Your task to perform on an android device: clear history in the chrome app Image 0: 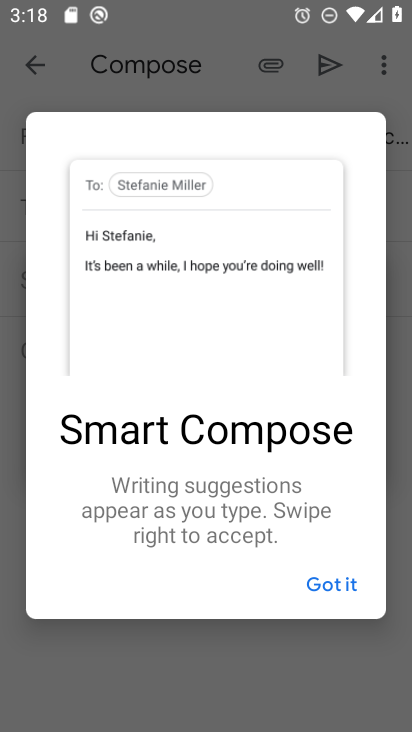
Step 0: press home button
Your task to perform on an android device: clear history in the chrome app Image 1: 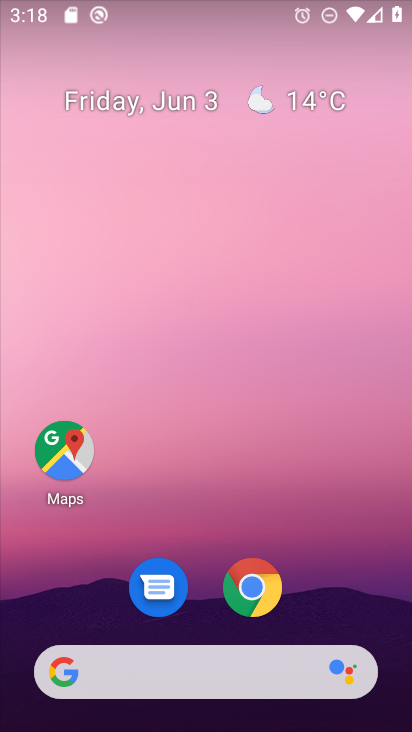
Step 1: click (251, 583)
Your task to perform on an android device: clear history in the chrome app Image 2: 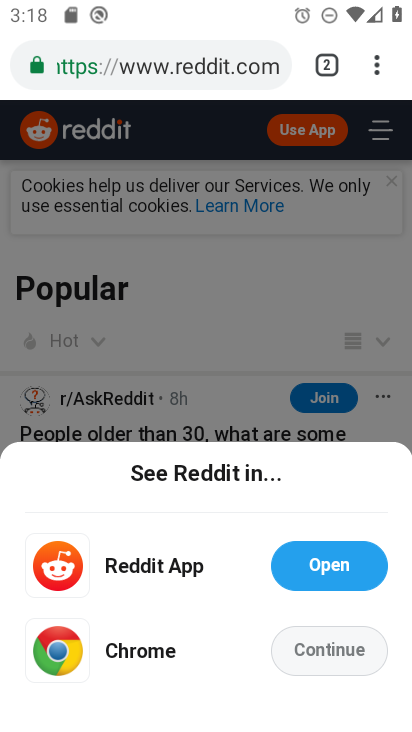
Step 2: click (377, 71)
Your task to perform on an android device: clear history in the chrome app Image 3: 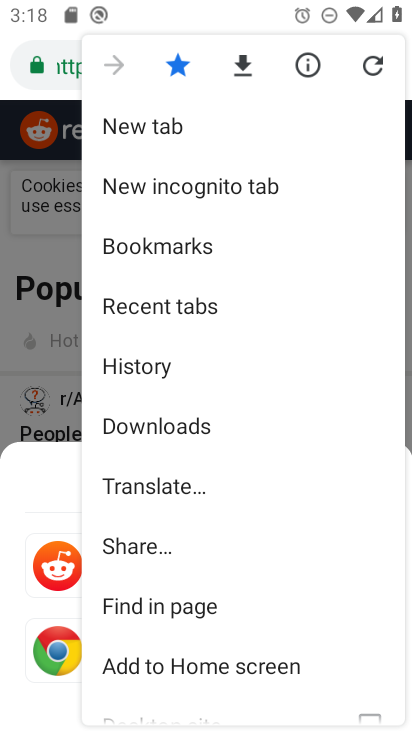
Step 3: click (160, 369)
Your task to perform on an android device: clear history in the chrome app Image 4: 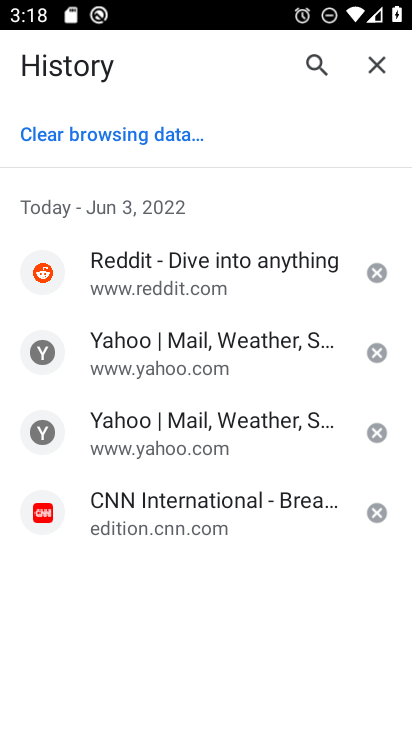
Step 4: click (132, 131)
Your task to perform on an android device: clear history in the chrome app Image 5: 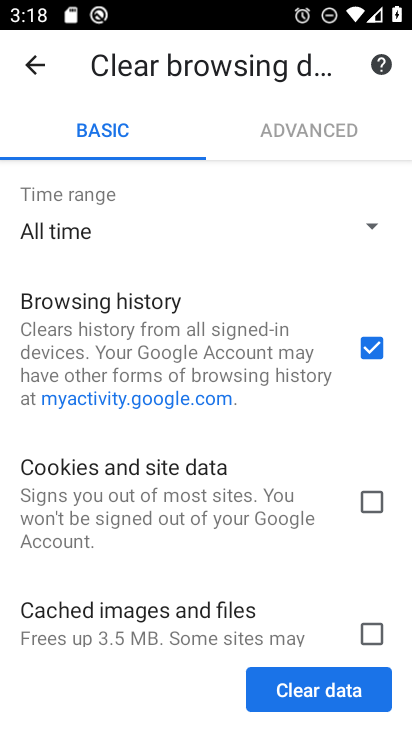
Step 5: click (350, 693)
Your task to perform on an android device: clear history in the chrome app Image 6: 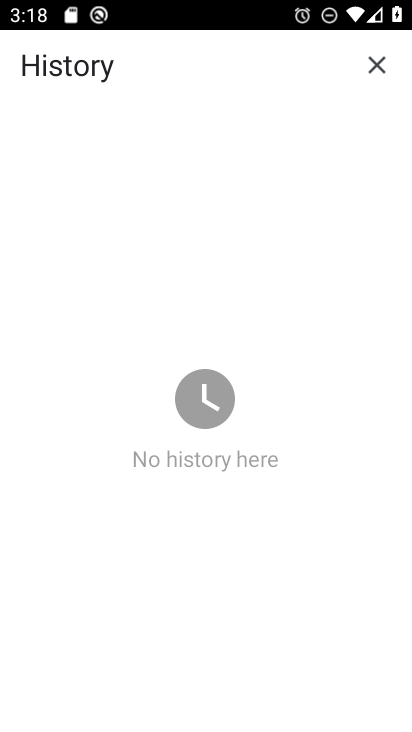
Step 6: task complete